Your task to perform on an android device: open a new tab in the chrome app Image 0: 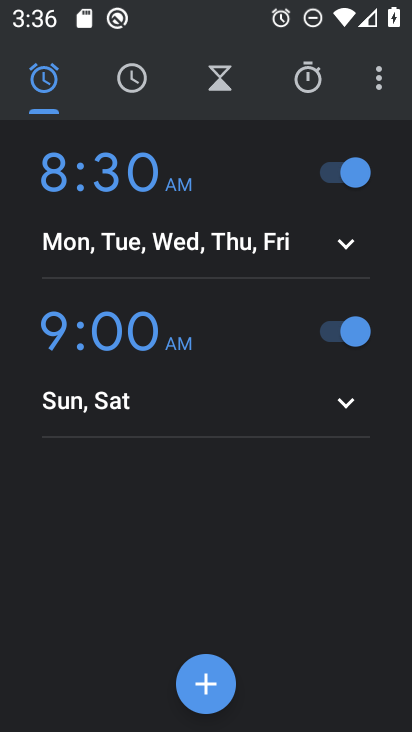
Step 0: press back button
Your task to perform on an android device: open a new tab in the chrome app Image 1: 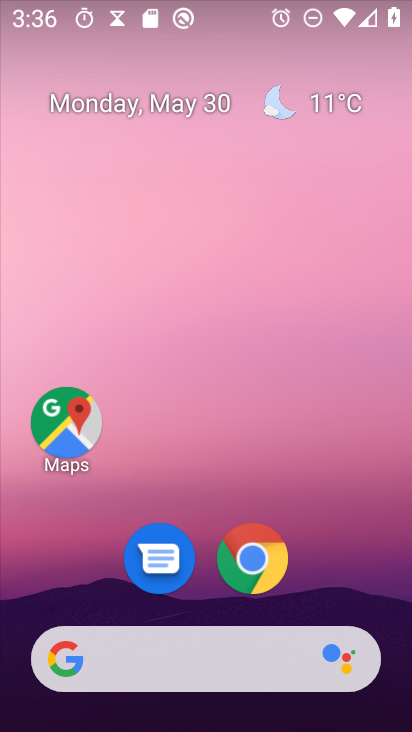
Step 1: click (255, 557)
Your task to perform on an android device: open a new tab in the chrome app Image 2: 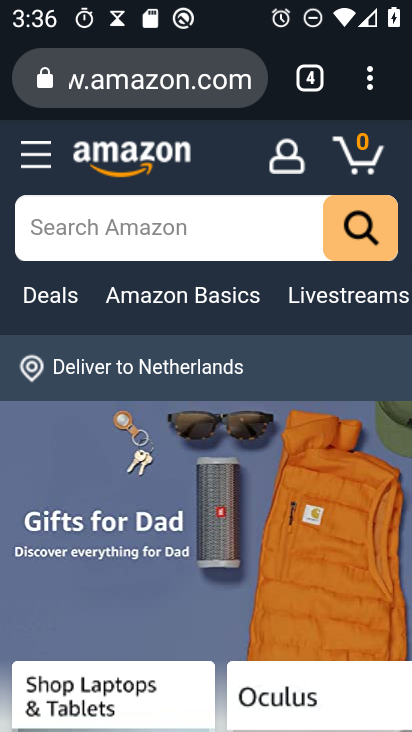
Step 2: click (305, 76)
Your task to perform on an android device: open a new tab in the chrome app Image 3: 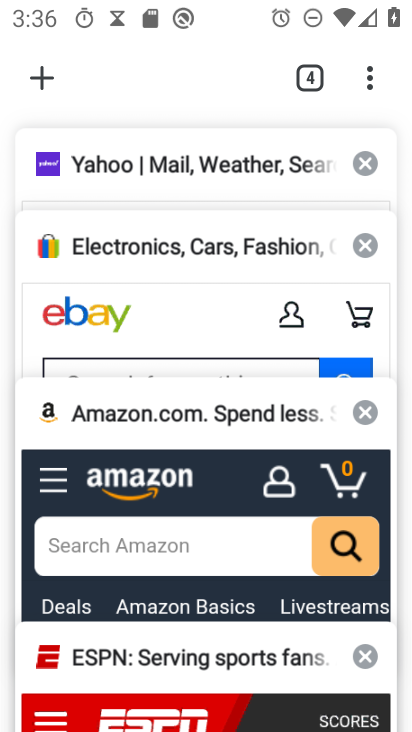
Step 3: click (48, 78)
Your task to perform on an android device: open a new tab in the chrome app Image 4: 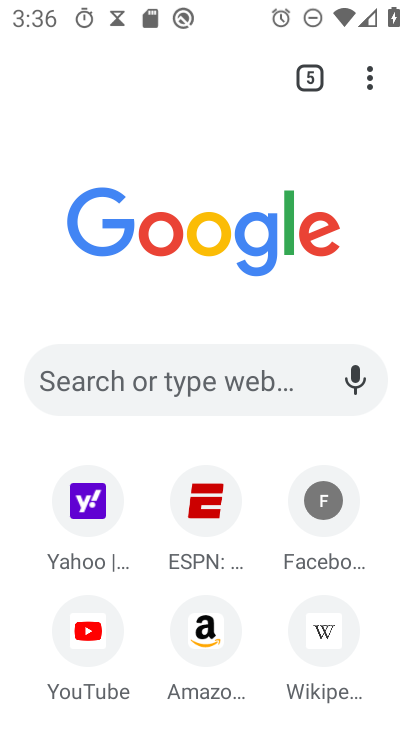
Step 4: task complete